Your task to perform on an android device: visit the assistant section in the google photos Image 0: 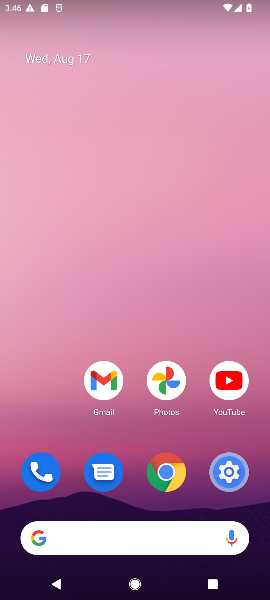
Step 0: click (168, 369)
Your task to perform on an android device: visit the assistant section in the google photos Image 1: 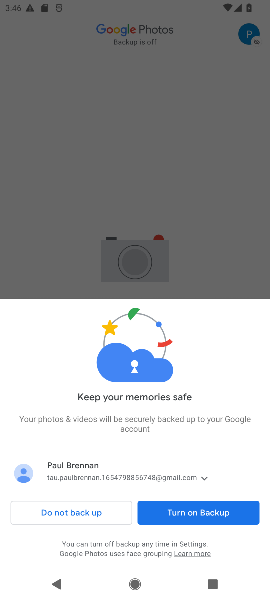
Step 1: click (83, 511)
Your task to perform on an android device: visit the assistant section in the google photos Image 2: 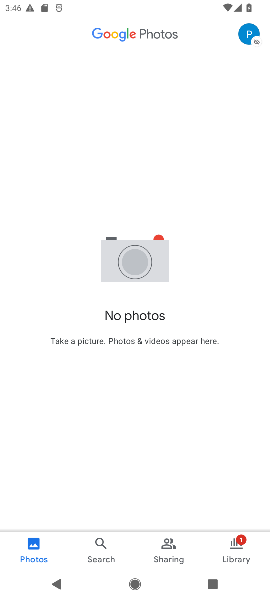
Step 2: click (164, 545)
Your task to perform on an android device: visit the assistant section in the google photos Image 3: 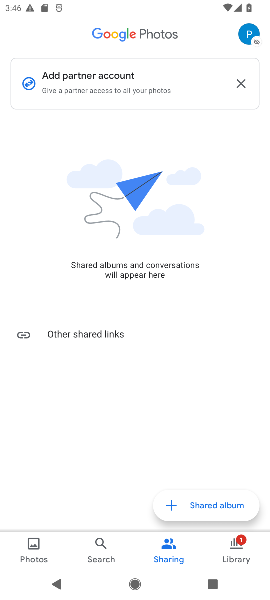
Step 3: click (233, 543)
Your task to perform on an android device: visit the assistant section in the google photos Image 4: 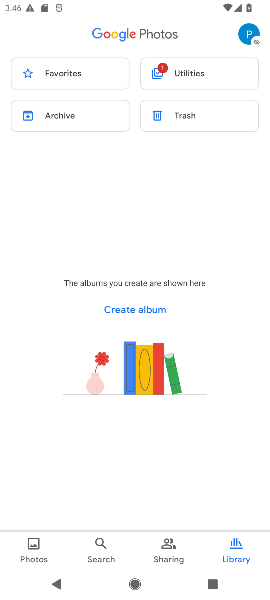
Step 4: click (40, 557)
Your task to perform on an android device: visit the assistant section in the google photos Image 5: 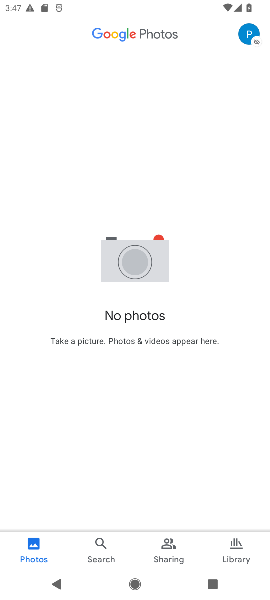
Step 5: task complete